Your task to perform on an android device: check android version Image 0: 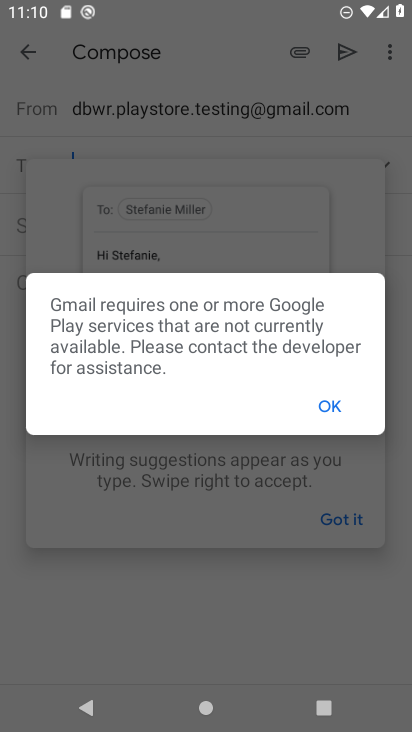
Step 0: click (329, 413)
Your task to perform on an android device: check android version Image 1: 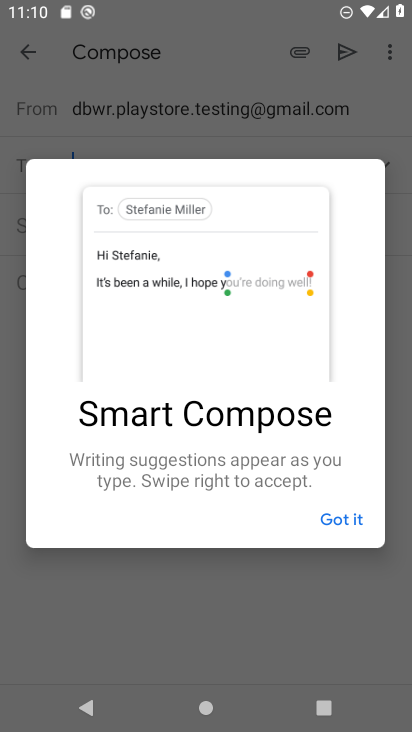
Step 1: click (344, 514)
Your task to perform on an android device: check android version Image 2: 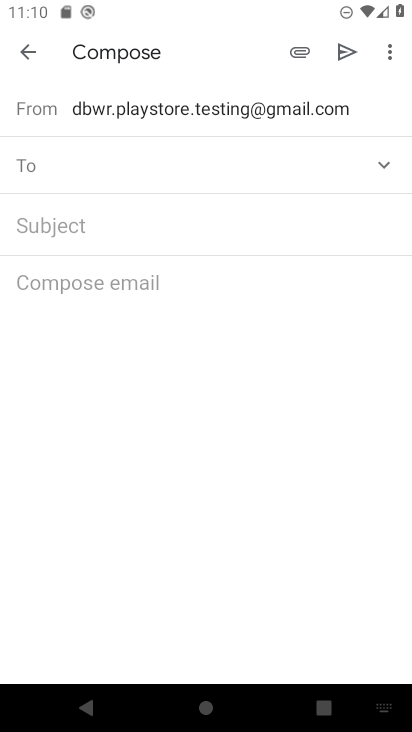
Step 2: press home button
Your task to perform on an android device: check android version Image 3: 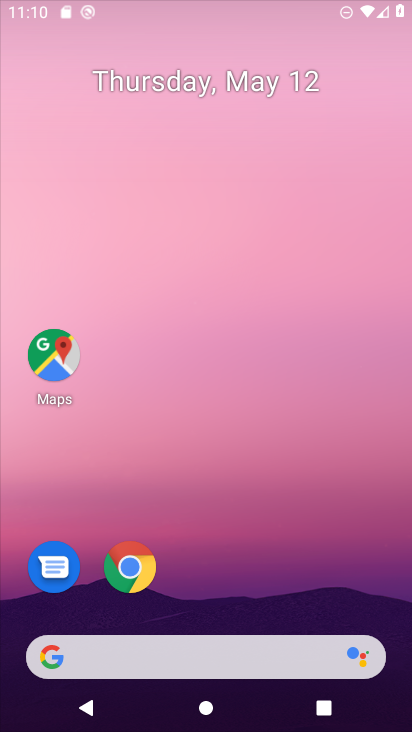
Step 3: drag from (232, 592) to (240, 95)
Your task to perform on an android device: check android version Image 4: 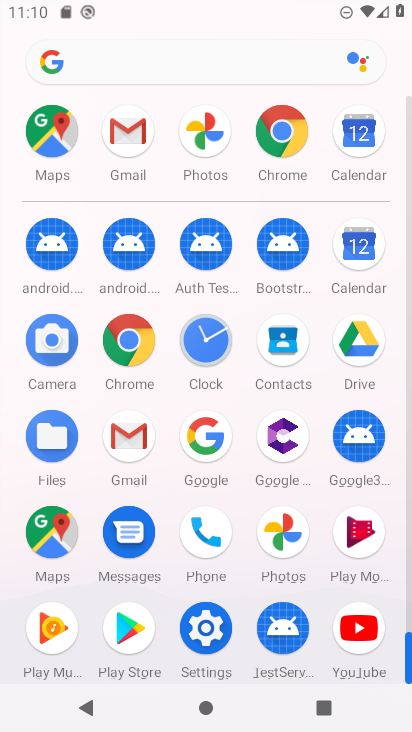
Step 4: drag from (205, 444) to (252, 176)
Your task to perform on an android device: check android version Image 5: 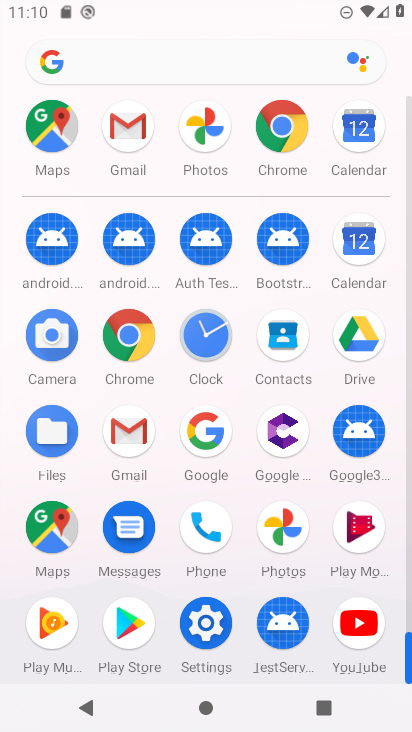
Step 5: click (212, 622)
Your task to perform on an android device: check android version Image 6: 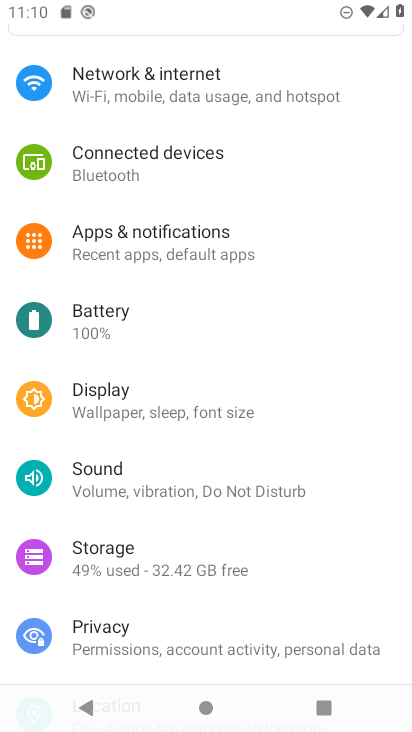
Step 6: drag from (143, 479) to (178, 194)
Your task to perform on an android device: check android version Image 7: 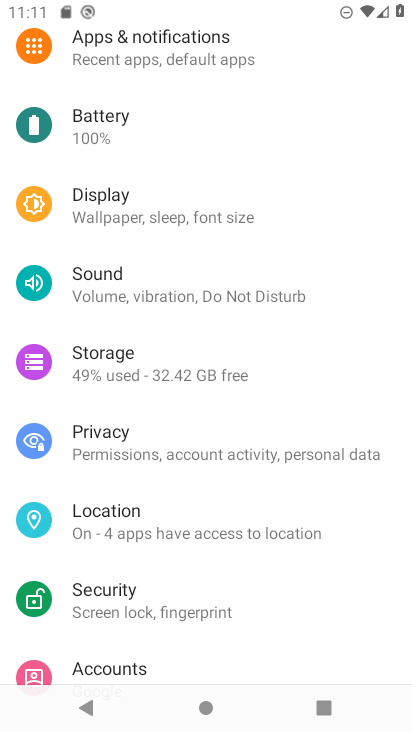
Step 7: drag from (147, 497) to (176, 270)
Your task to perform on an android device: check android version Image 8: 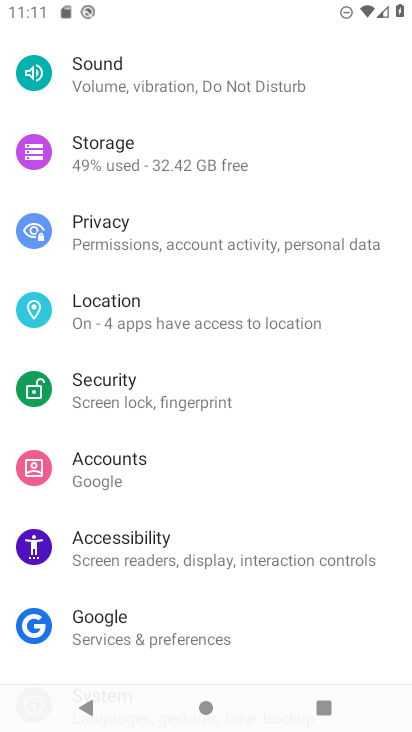
Step 8: drag from (161, 531) to (212, 213)
Your task to perform on an android device: check android version Image 9: 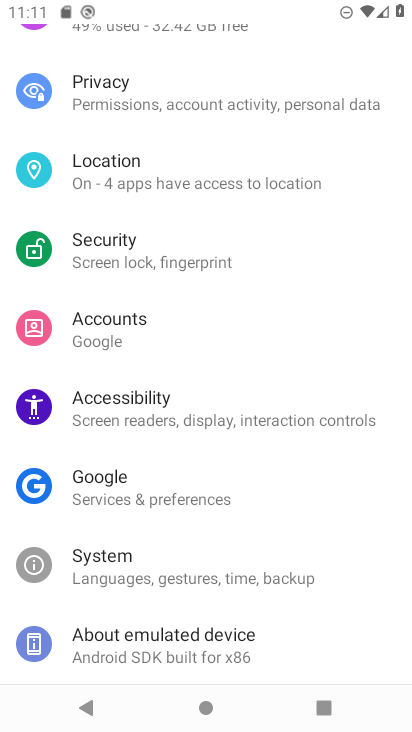
Step 9: drag from (176, 540) to (225, 349)
Your task to perform on an android device: check android version Image 10: 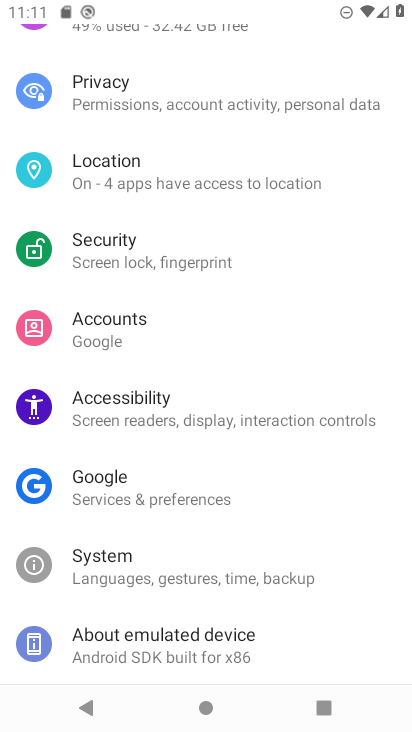
Step 10: click (187, 639)
Your task to perform on an android device: check android version Image 11: 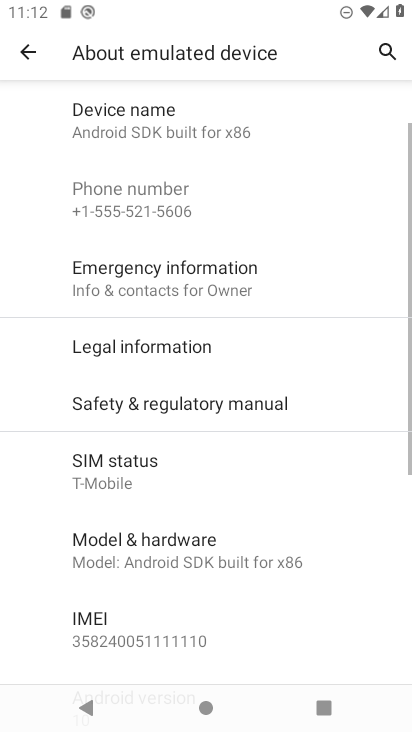
Step 11: drag from (146, 426) to (146, 123)
Your task to perform on an android device: check android version Image 12: 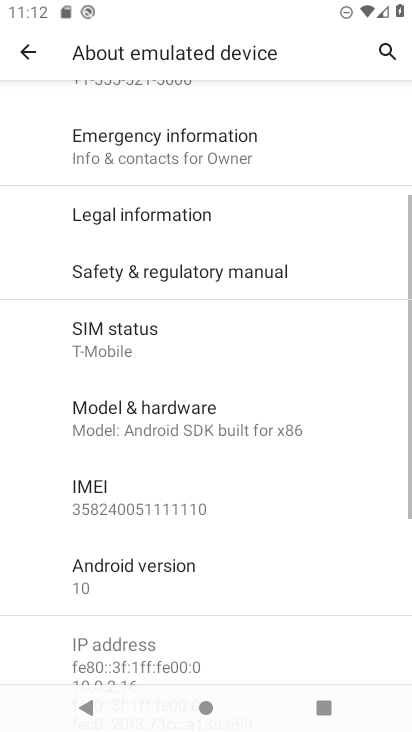
Step 12: click (176, 568)
Your task to perform on an android device: check android version Image 13: 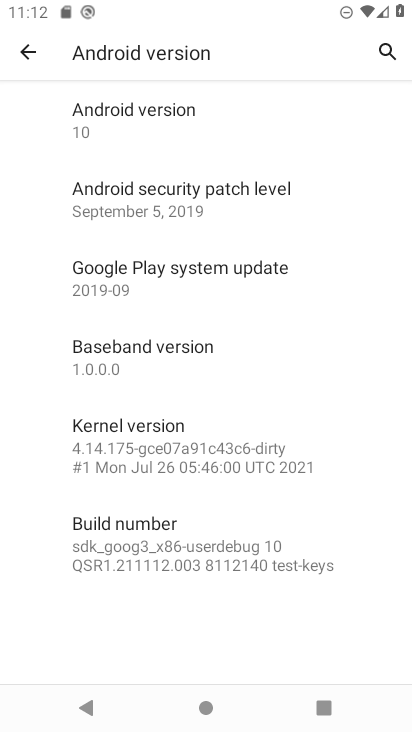
Step 13: task complete